Your task to perform on an android device: turn off airplane mode Image 0: 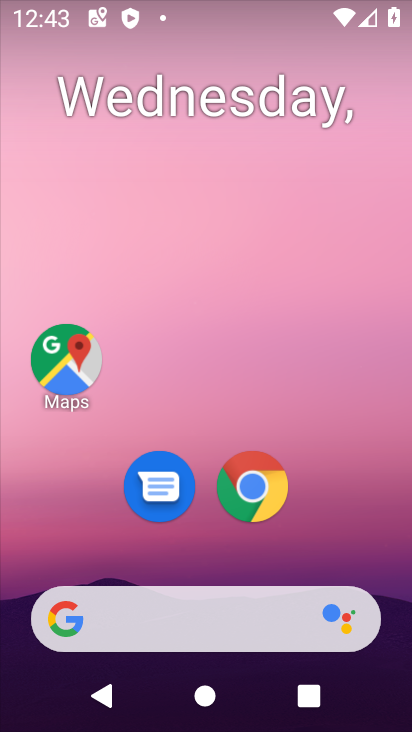
Step 0: drag from (353, 382) to (354, 75)
Your task to perform on an android device: turn off airplane mode Image 1: 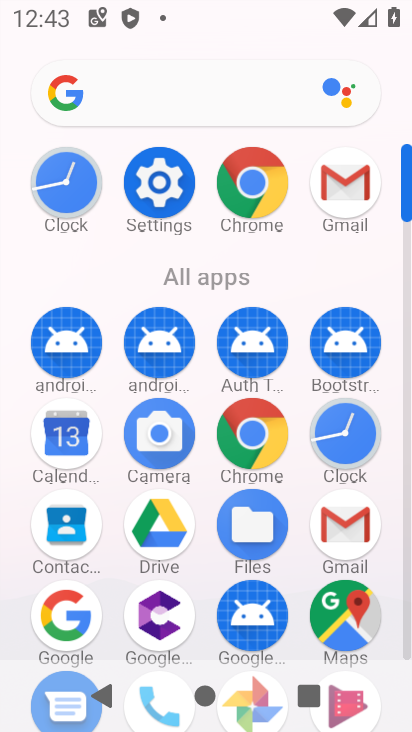
Step 1: click (169, 205)
Your task to perform on an android device: turn off airplane mode Image 2: 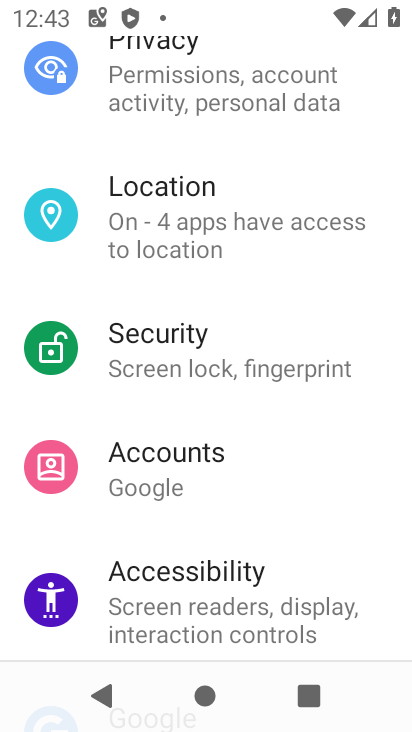
Step 2: drag from (378, 180) to (377, 336)
Your task to perform on an android device: turn off airplane mode Image 3: 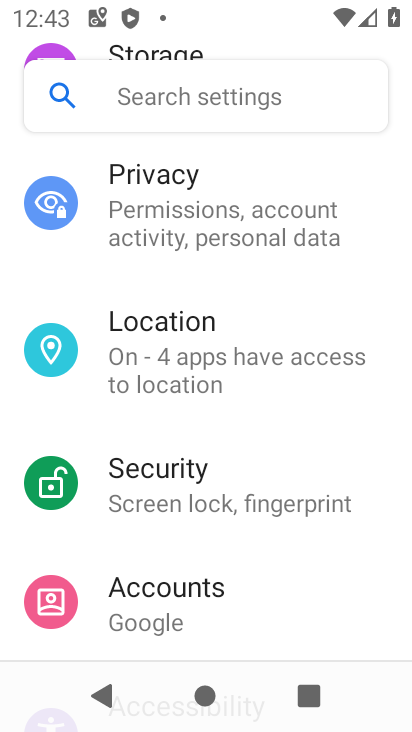
Step 3: drag from (372, 189) to (365, 328)
Your task to perform on an android device: turn off airplane mode Image 4: 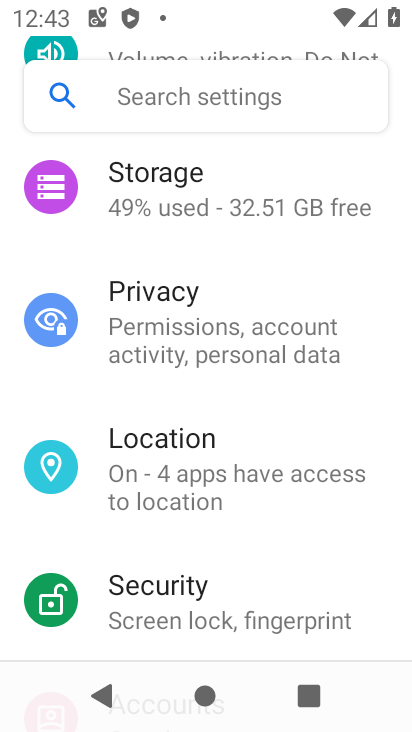
Step 4: drag from (363, 248) to (364, 358)
Your task to perform on an android device: turn off airplane mode Image 5: 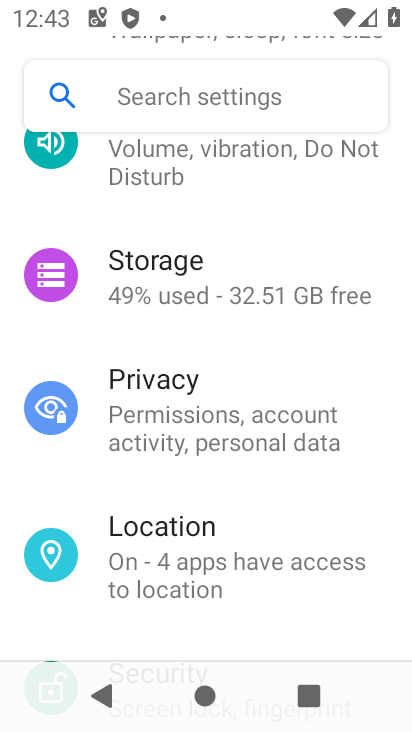
Step 5: drag from (357, 226) to (357, 360)
Your task to perform on an android device: turn off airplane mode Image 6: 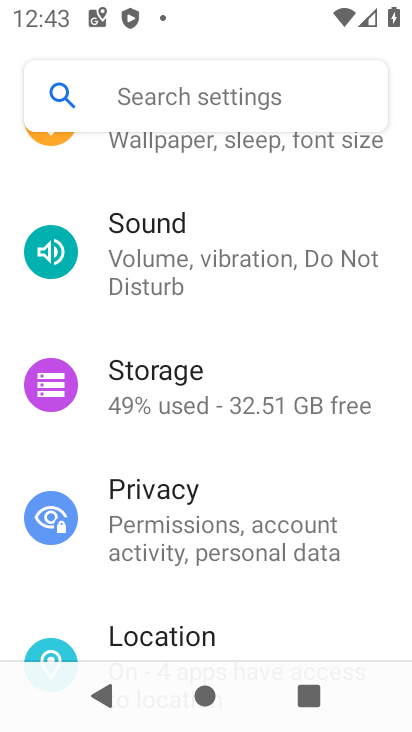
Step 6: drag from (379, 204) to (361, 375)
Your task to perform on an android device: turn off airplane mode Image 7: 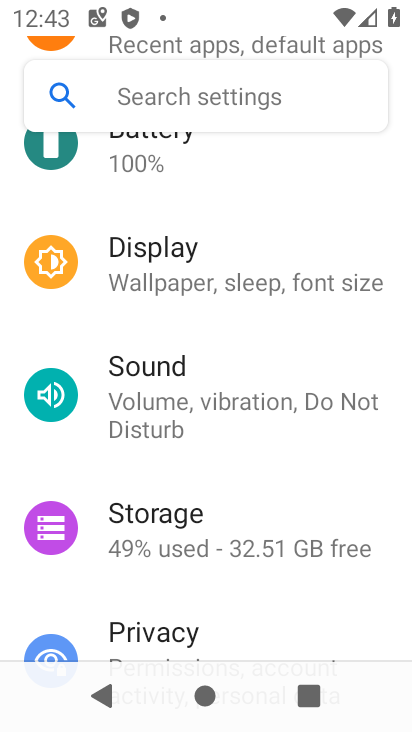
Step 7: drag from (338, 197) to (338, 359)
Your task to perform on an android device: turn off airplane mode Image 8: 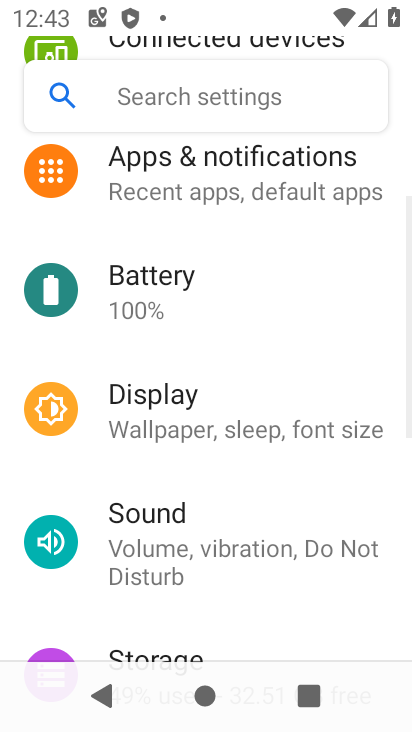
Step 8: drag from (352, 215) to (351, 362)
Your task to perform on an android device: turn off airplane mode Image 9: 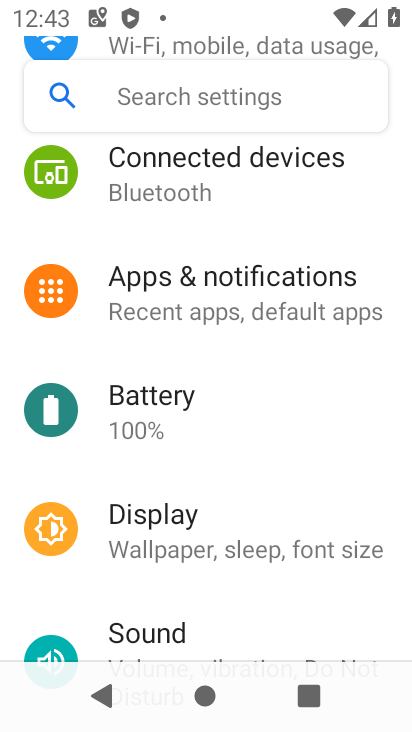
Step 9: drag from (372, 194) to (363, 381)
Your task to perform on an android device: turn off airplane mode Image 10: 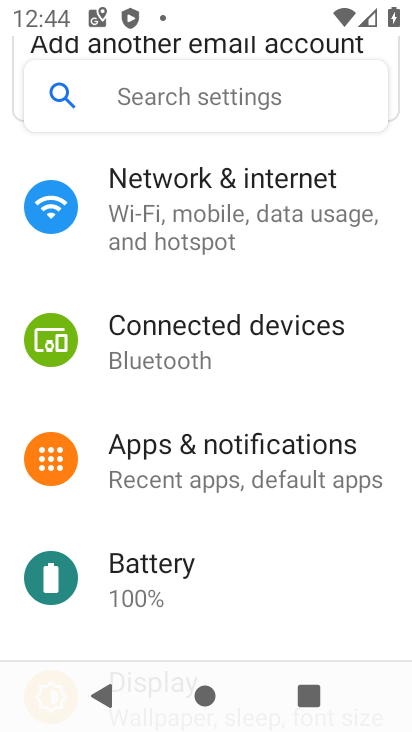
Step 10: click (281, 209)
Your task to perform on an android device: turn off airplane mode Image 11: 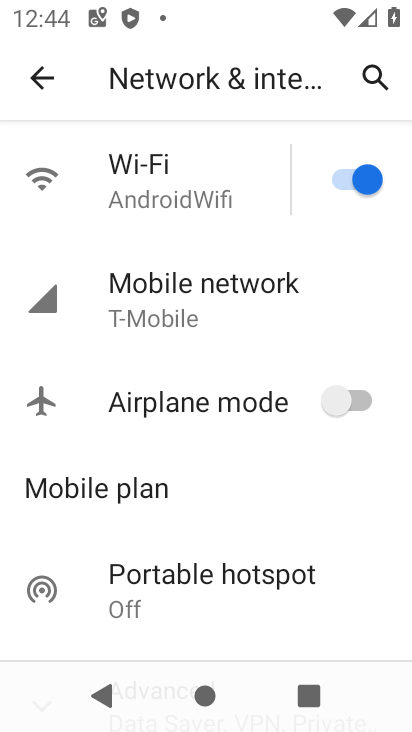
Step 11: task complete